Your task to perform on an android device: open the mobile data screen to see how much data has been used Image 0: 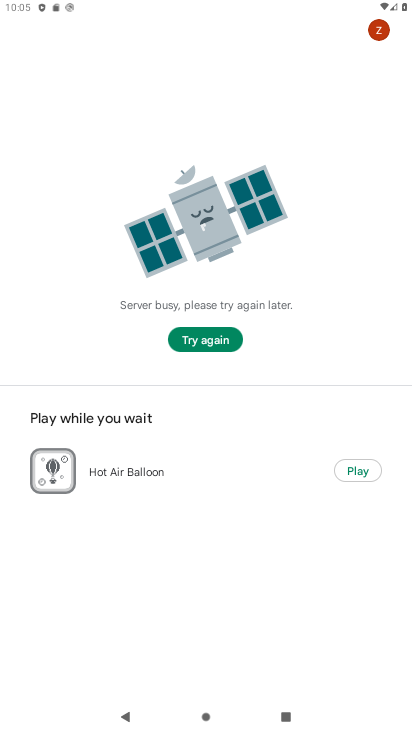
Step 0: press home button
Your task to perform on an android device: open the mobile data screen to see how much data has been used Image 1: 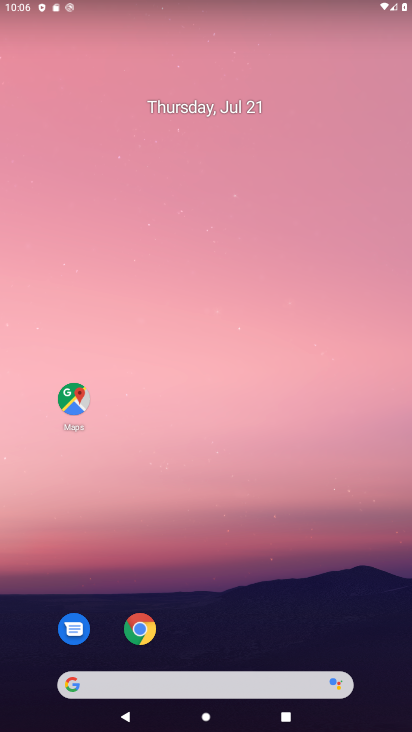
Step 1: drag from (274, 509) to (302, 157)
Your task to perform on an android device: open the mobile data screen to see how much data has been used Image 2: 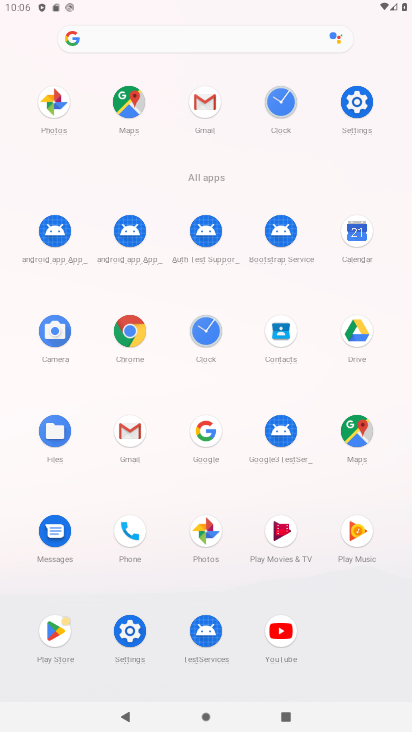
Step 2: click (359, 100)
Your task to perform on an android device: open the mobile data screen to see how much data has been used Image 3: 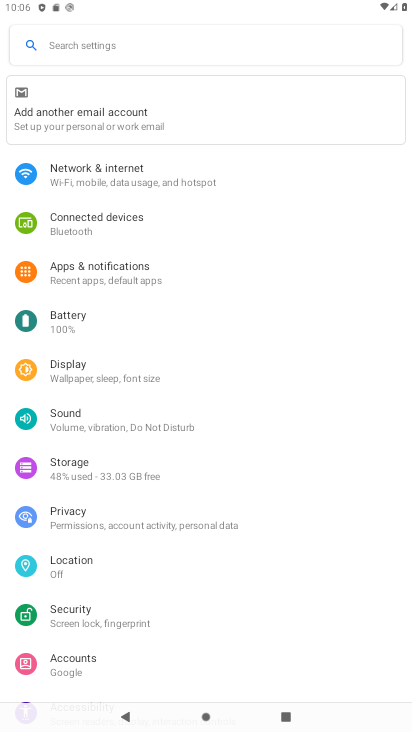
Step 3: click (133, 176)
Your task to perform on an android device: open the mobile data screen to see how much data has been used Image 4: 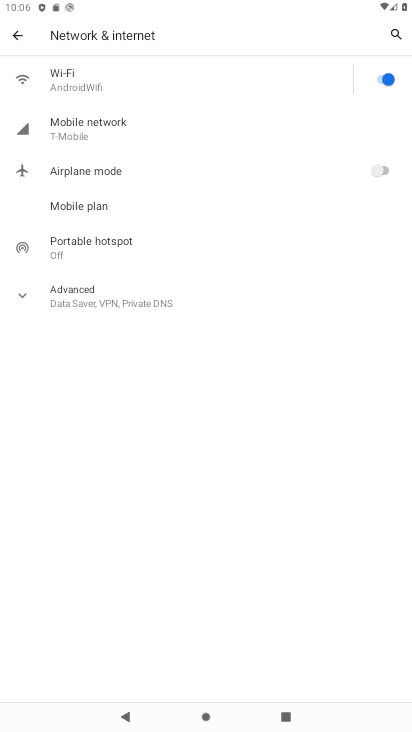
Step 4: click (96, 121)
Your task to perform on an android device: open the mobile data screen to see how much data has been used Image 5: 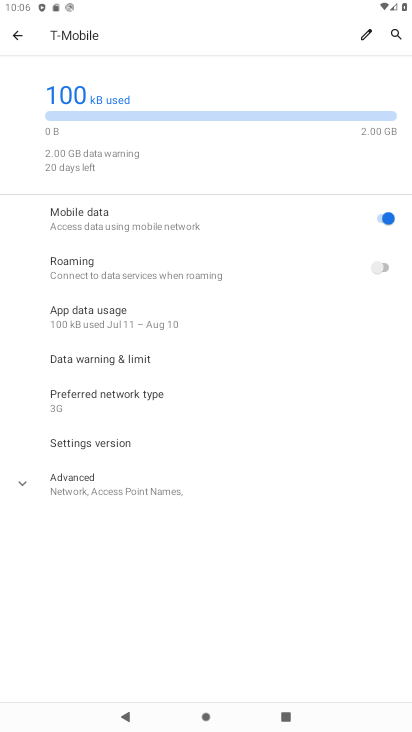
Step 5: task complete